Your task to perform on an android device: Show me popular games on the Play Store Image 0: 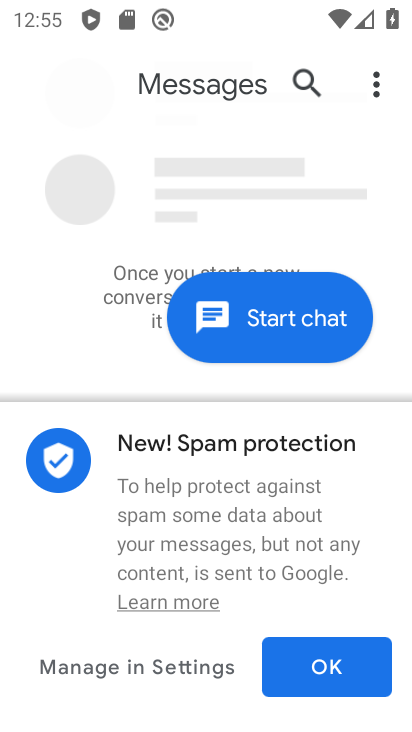
Step 0: press home button
Your task to perform on an android device: Show me popular games on the Play Store Image 1: 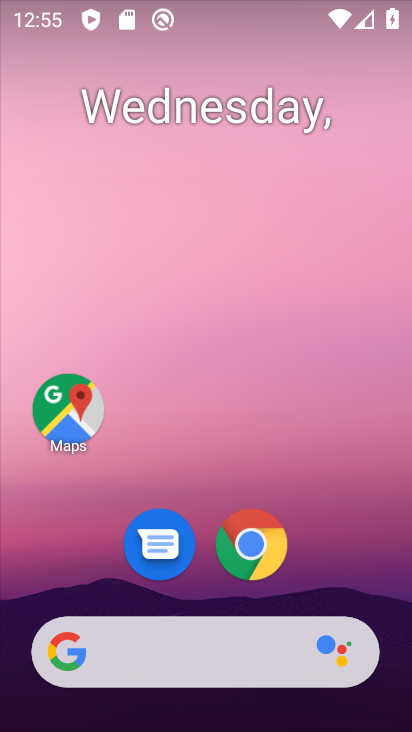
Step 1: drag from (342, 576) to (328, 44)
Your task to perform on an android device: Show me popular games on the Play Store Image 2: 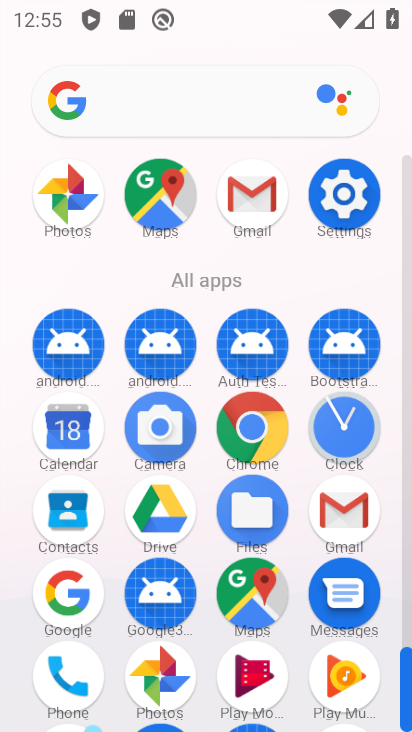
Step 2: drag from (301, 561) to (319, 158)
Your task to perform on an android device: Show me popular games on the Play Store Image 3: 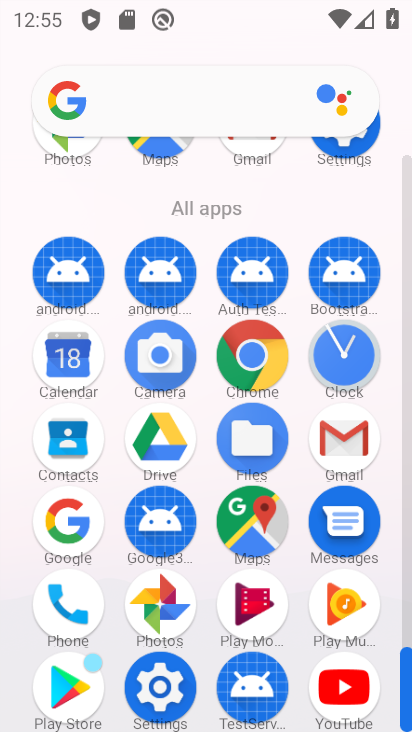
Step 3: click (87, 687)
Your task to perform on an android device: Show me popular games on the Play Store Image 4: 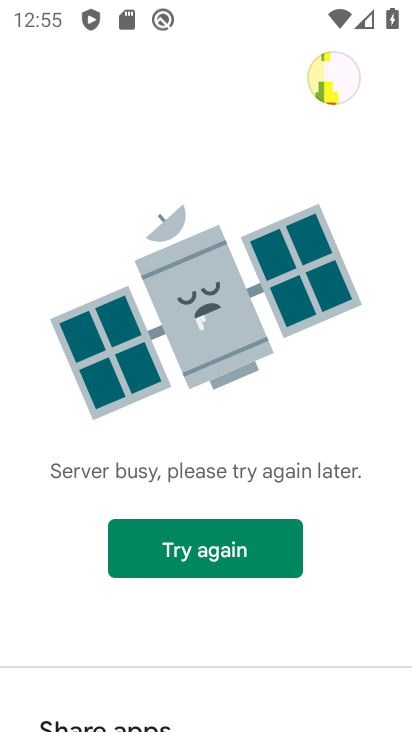
Step 4: click (238, 549)
Your task to perform on an android device: Show me popular games on the Play Store Image 5: 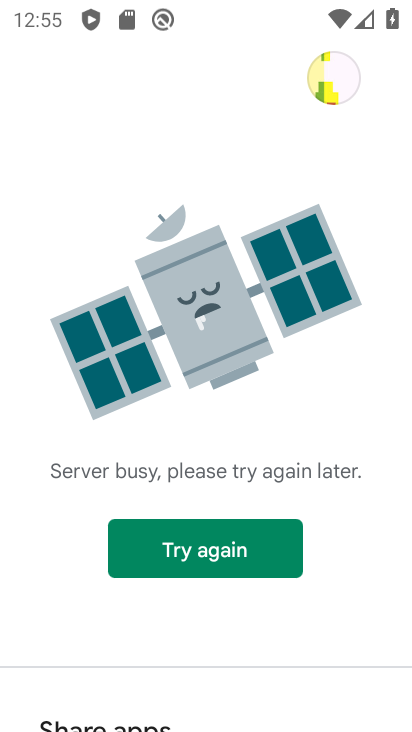
Step 5: task complete